Your task to perform on an android device: delete the emails in spam in the gmail app Image 0: 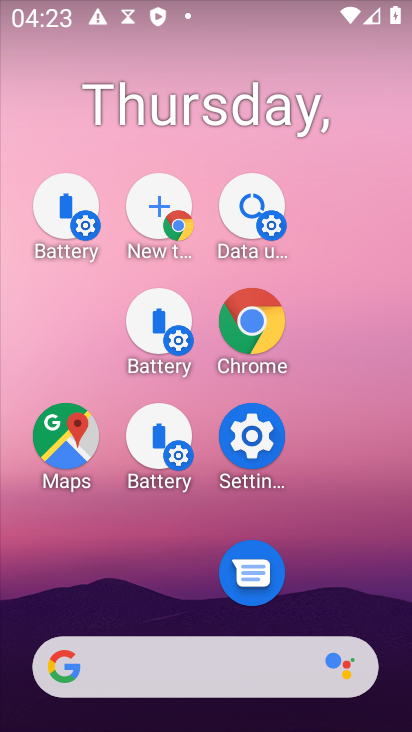
Step 0: drag from (323, 665) to (314, 180)
Your task to perform on an android device: delete the emails in spam in the gmail app Image 1: 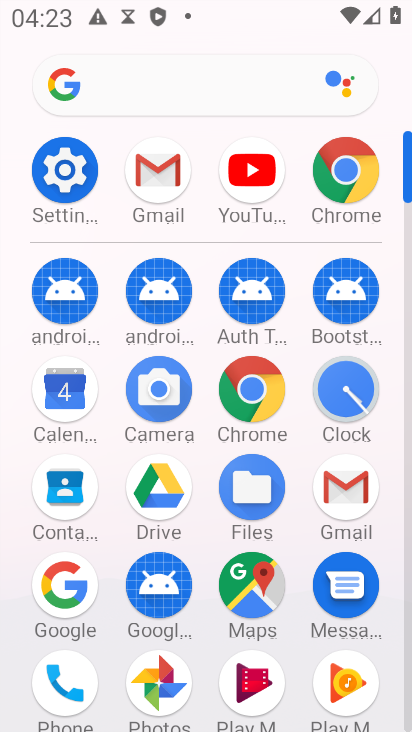
Step 1: click (137, 165)
Your task to perform on an android device: delete the emails in spam in the gmail app Image 2: 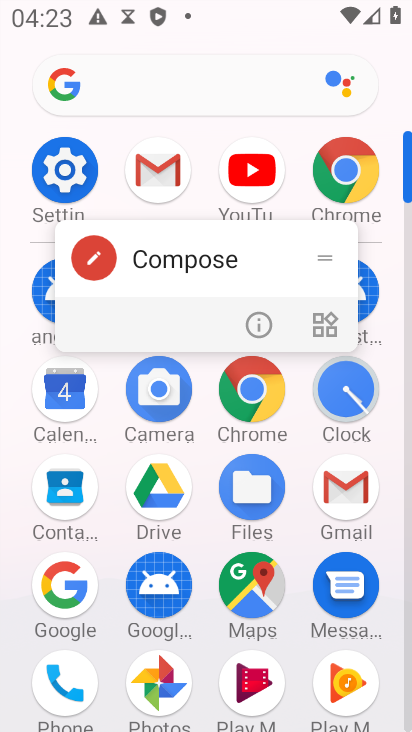
Step 2: click (137, 165)
Your task to perform on an android device: delete the emails in spam in the gmail app Image 3: 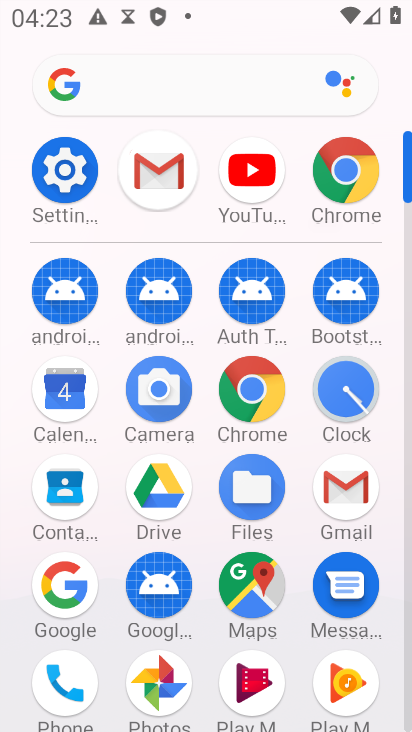
Step 3: click (177, 260)
Your task to perform on an android device: delete the emails in spam in the gmail app Image 4: 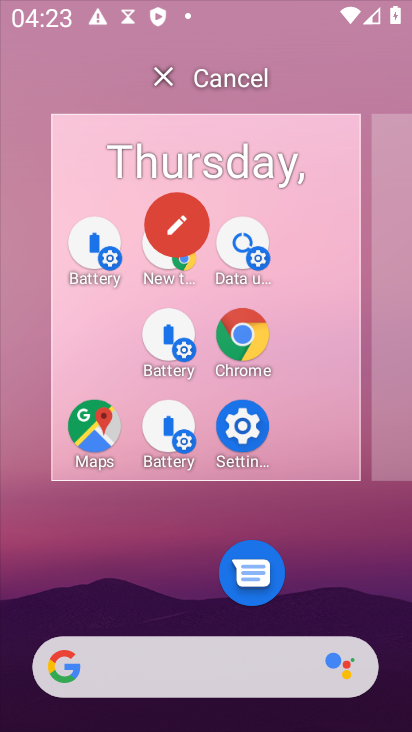
Step 4: click (164, 167)
Your task to perform on an android device: delete the emails in spam in the gmail app Image 5: 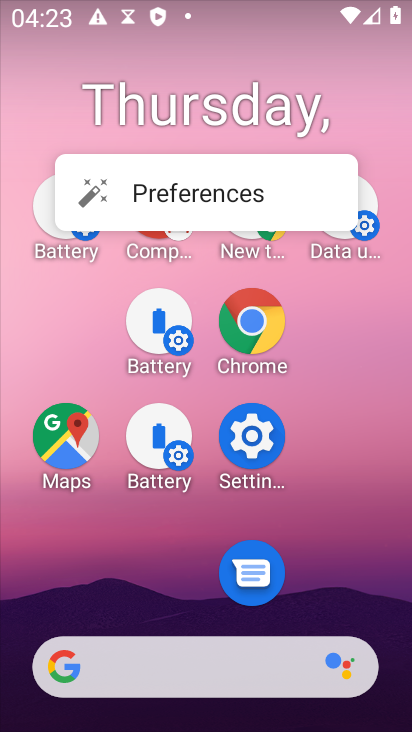
Step 5: drag from (265, 673) to (251, 162)
Your task to perform on an android device: delete the emails in spam in the gmail app Image 6: 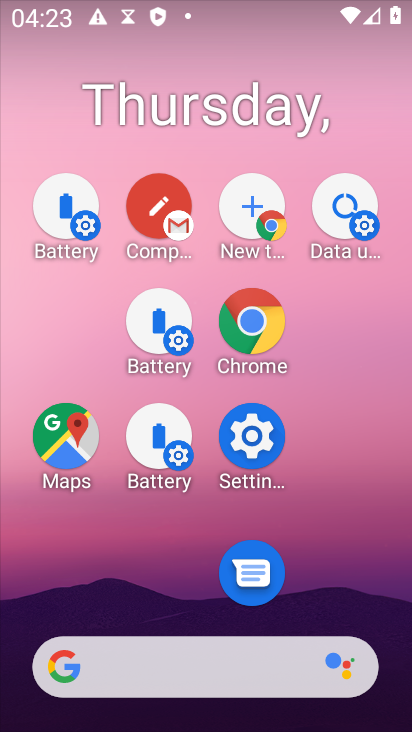
Step 6: drag from (258, 458) to (225, 213)
Your task to perform on an android device: delete the emails in spam in the gmail app Image 7: 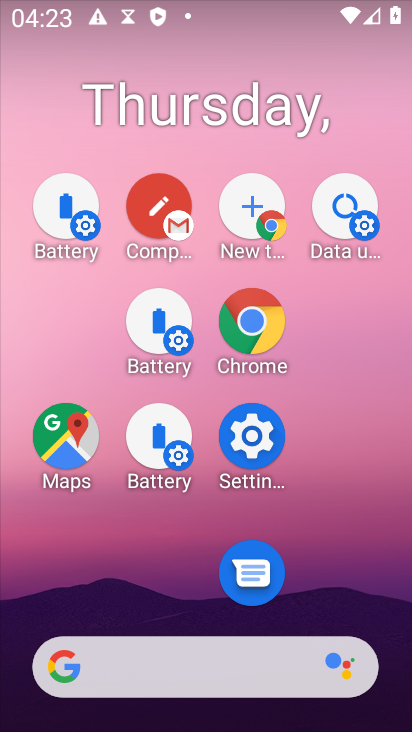
Step 7: drag from (254, 571) to (232, 192)
Your task to perform on an android device: delete the emails in spam in the gmail app Image 8: 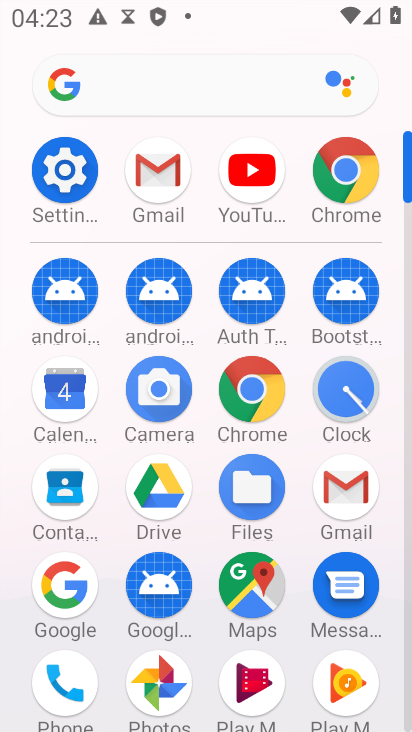
Step 8: drag from (213, 608) to (206, 182)
Your task to perform on an android device: delete the emails in spam in the gmail app Image 9: 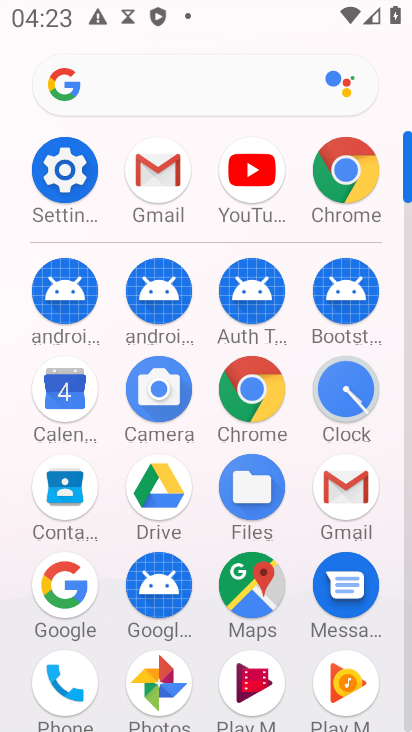
Step 9: drag from (233, 580) to (214, 330)
Your task to perform on an android device: delete the emails in spam in the gmail app Image 10: 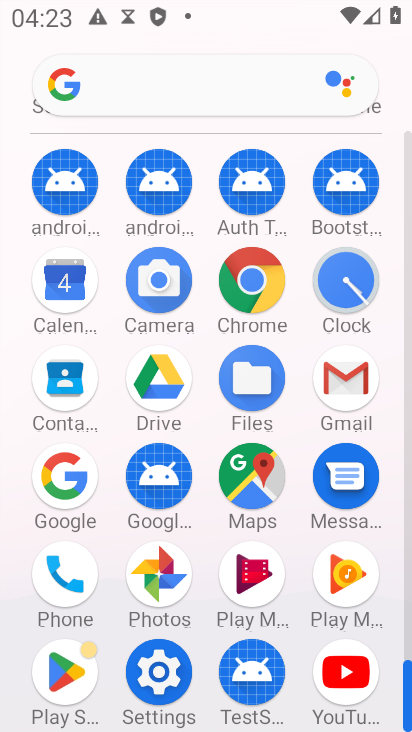
Step 10: click (346, 376)
Your task to perform on an android device: delete the emails in spam in the gmail app Image 11: 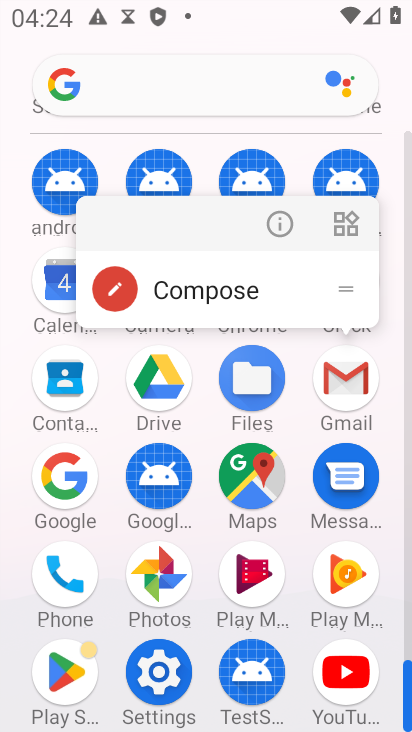
Step 11: click (334, 376)
Your task to perform on an android device: delete the emails in spam in the gmail app Image 12: 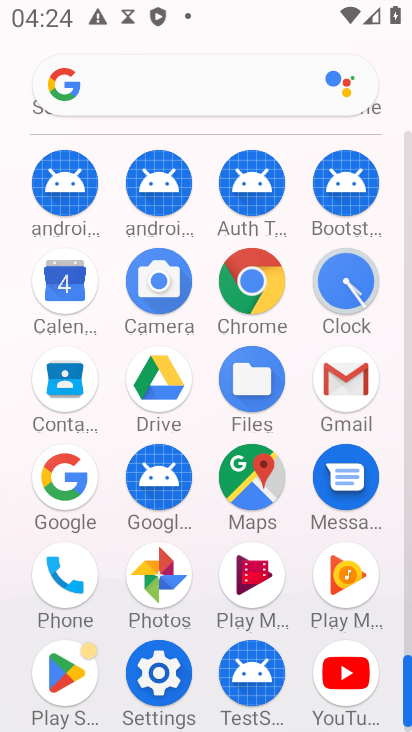
Step 12: click (339, 390)
Your task to perform on an android device: delete the emails in spam in the gmail app Image 13: 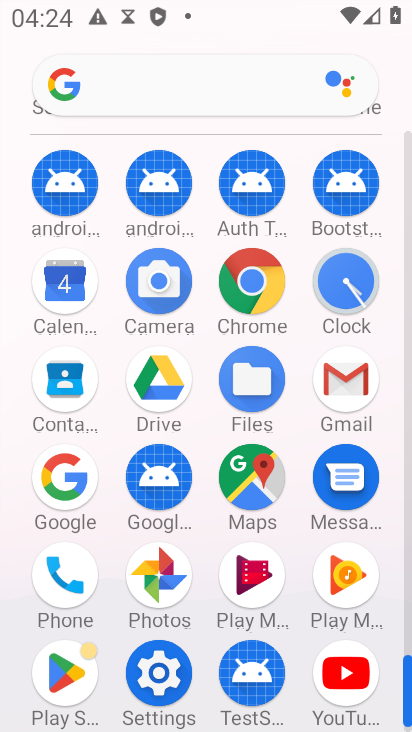
Step 13: click (339, 390)
Your task to perform on an android device: delete the emails in spam in the gmail app Image 14: 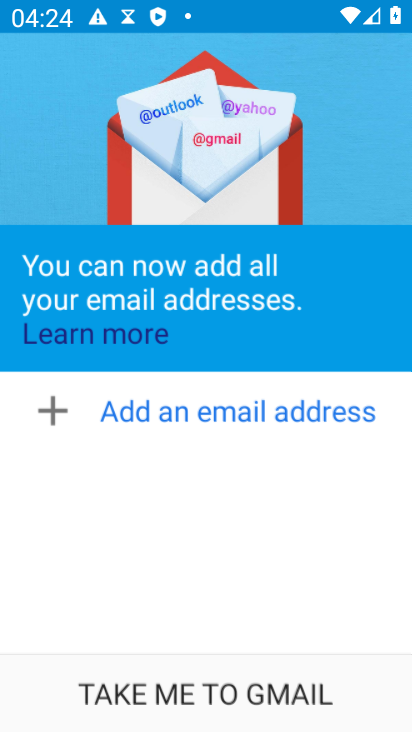
Step 14: click (340, 385)
Your task to perform on an android device: delete the emails in spam in the gmail app Image 15: 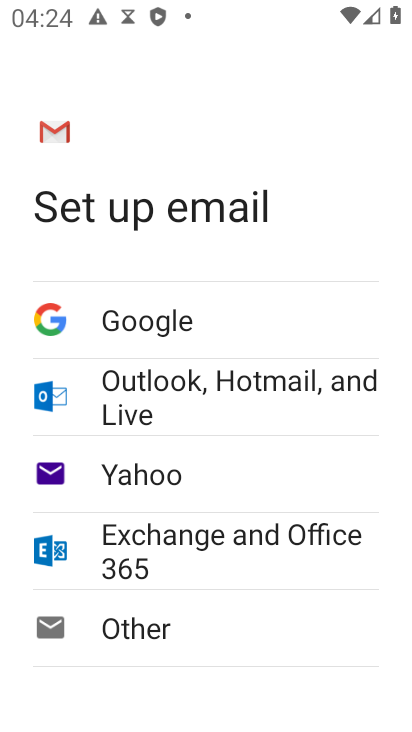
Step 15: click (177, 701)
Your task to perform on an android device: delete the emails in spam in the gmail app Image 16: 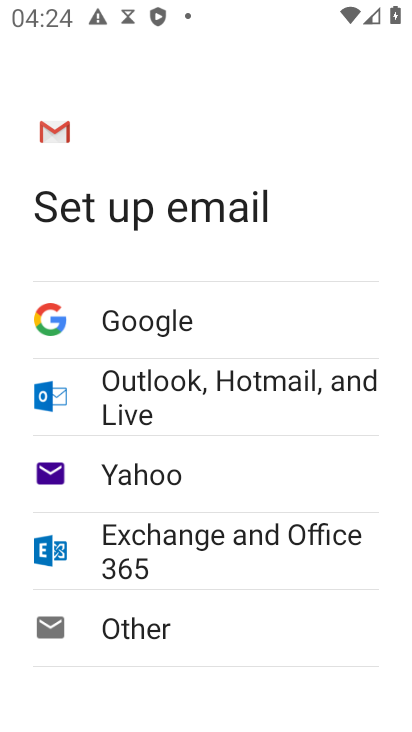
Step 16: drag from (244, 622) to (238, 155)
Your task to perform on an android device: delete the emails in spam in the gmail app Image 17: 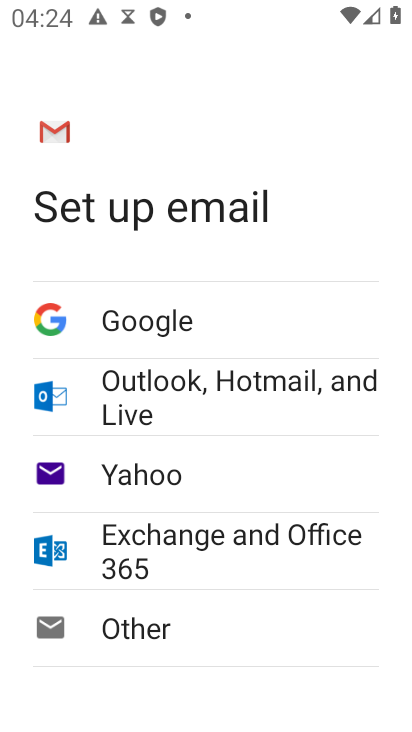
Step 17: click (263, 141)
Your task to perform on an android device: delete the emails in spam in the gmail app Image 18: 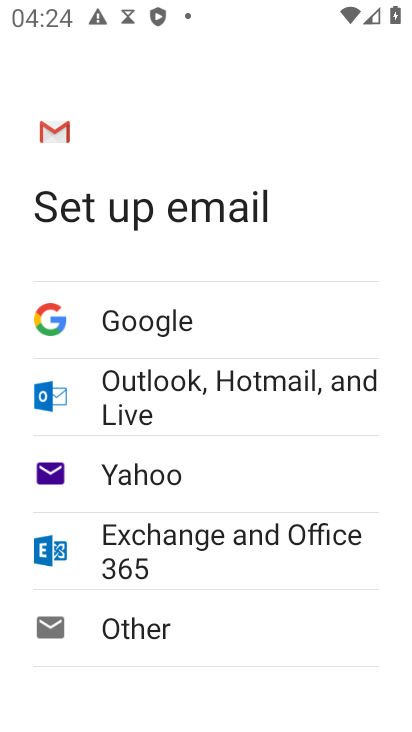
Step 18: press back button
Your task to perform on an android device: delete the emails in spam in the gmail app Image 19: 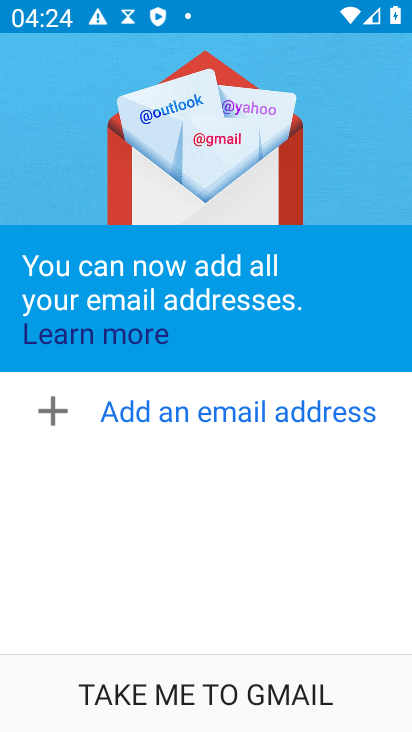
Step 19: click (150, 691)
Your task to perform on an android device: delete the emails in spam in the gmail app Image 20: 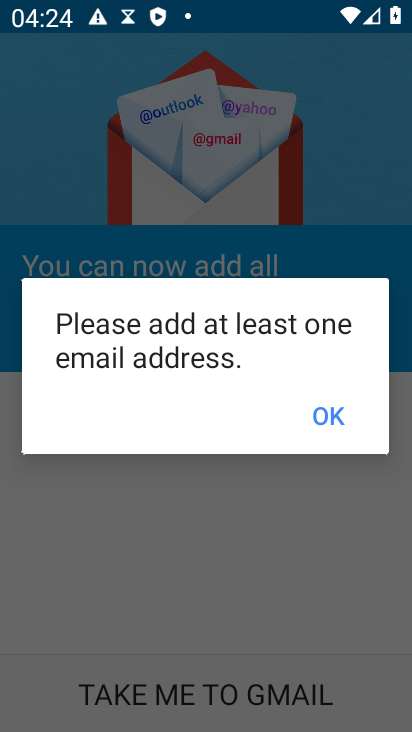
Step 20: click (322, 411)
Your task to perform on an android device: delete the emails in spam in the gmail app Image 21: 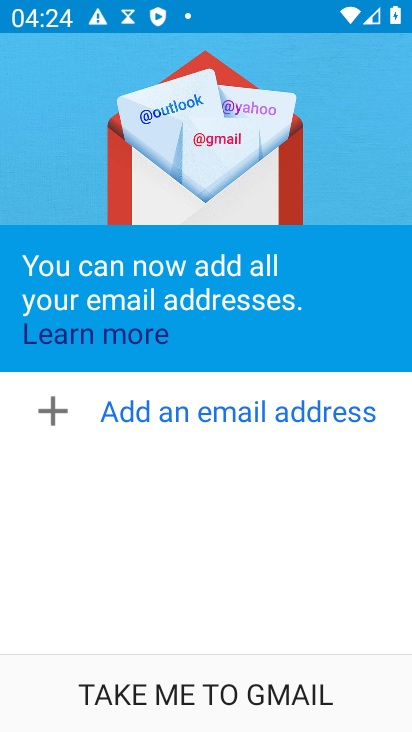
Step 21: task complete